Your task to perform on an android device: Open Google Chrome Image 0: 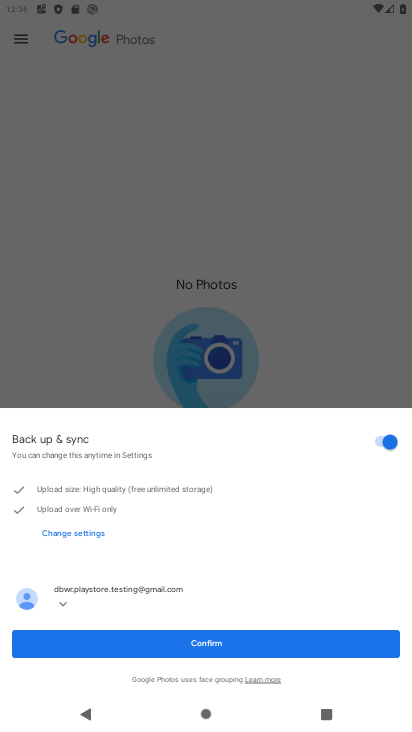
Step 0: press back button
Your task to perform on an android device: Open Google Chrome Image 1: 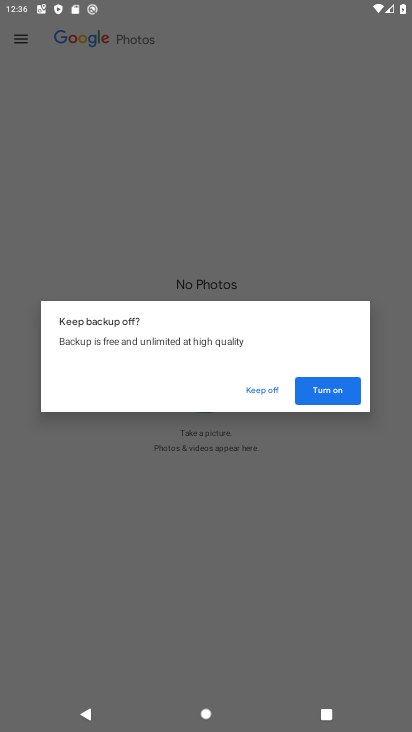
Step 1: press home button
Your task to perform on an android device: Open Google Chrome Image 2: 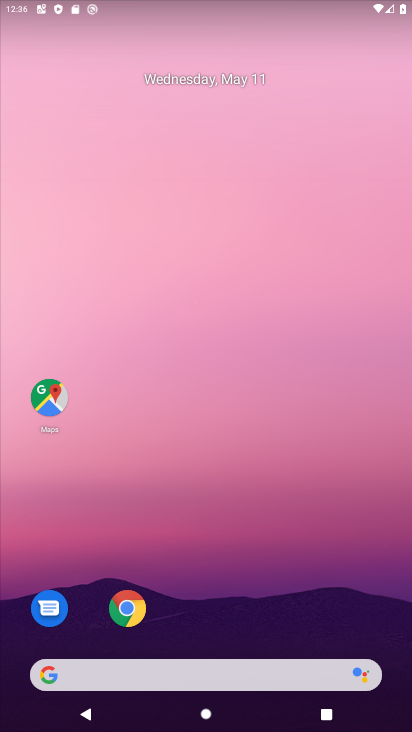
Step 2: click (132, 609)
Your task to perform on an android device: Open Google Chrome Image 3: 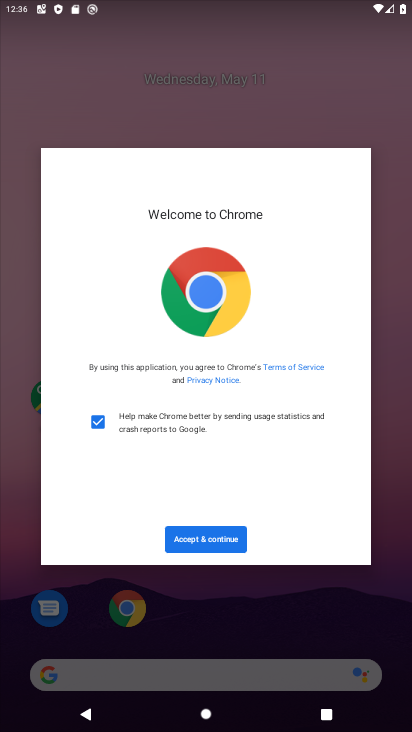
Step 3: click (208, 541)
Your task to perform on an android device: Open Google Chrome Image 4: 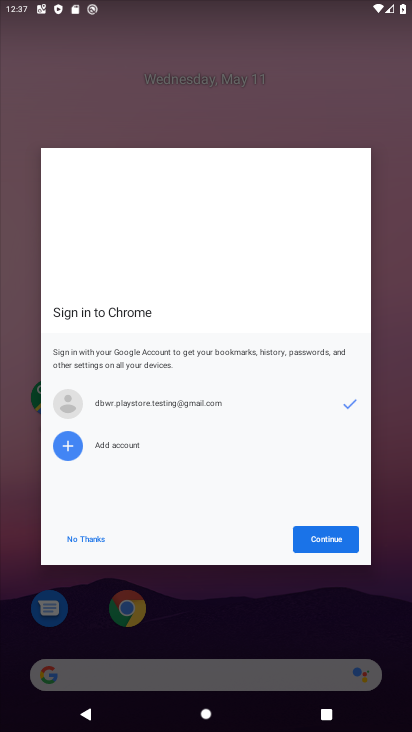
Step 4: click (335, 574)
Your task to perform on an android device: Open Google Chrome Image 5: 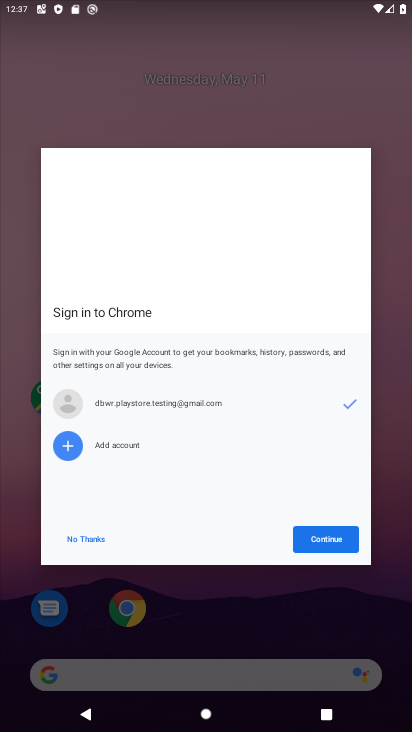
Step 5: click (335, 559)
Your task to perform on an android device: Open Google Chrome Image 6: 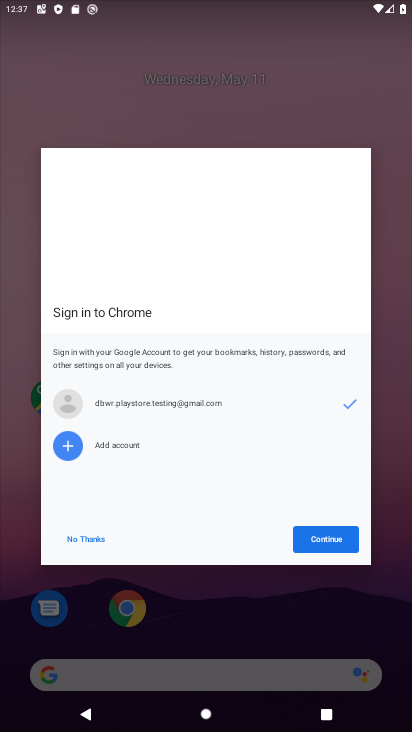
Step 6: click (326, 546)
Your task to perform on an android device: Open Google Chrome Image 7: 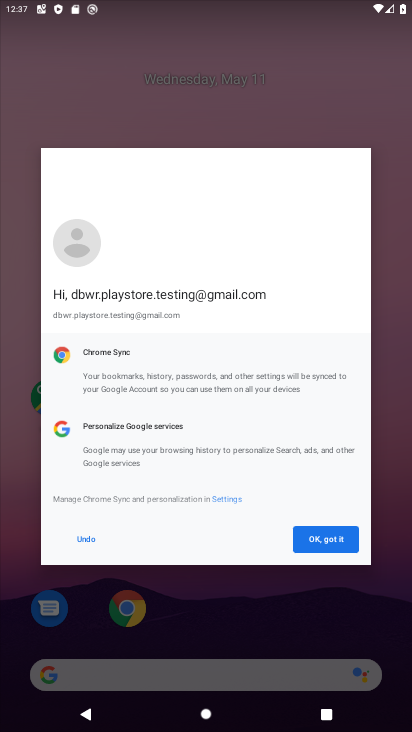
Step 7: click (327, 548)
Your task to perform on an android device: Open Google Chrome Image 8: 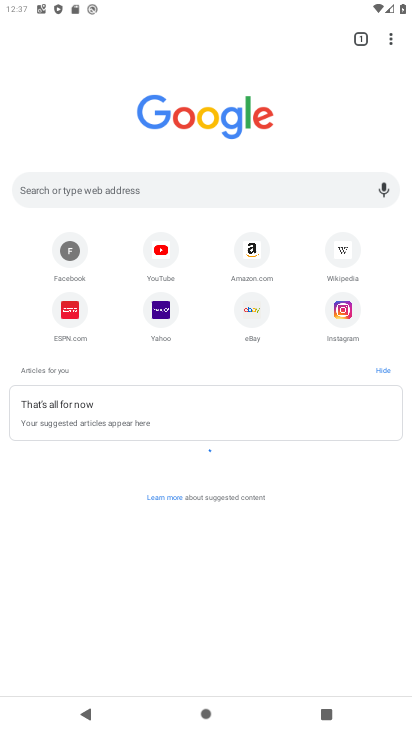
Step 8: task complete